Your task to perform on an android device: toggle javascript in the chrome app Image 0: 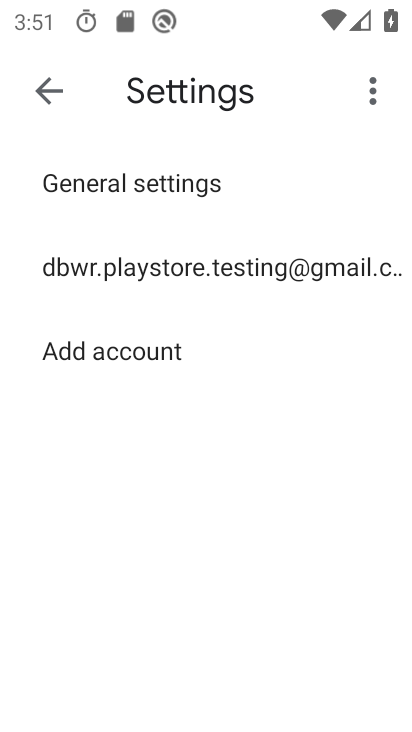
Step 0: press back button
Your task to perform on an android device: toggle javascript in the chrome app Image 1: 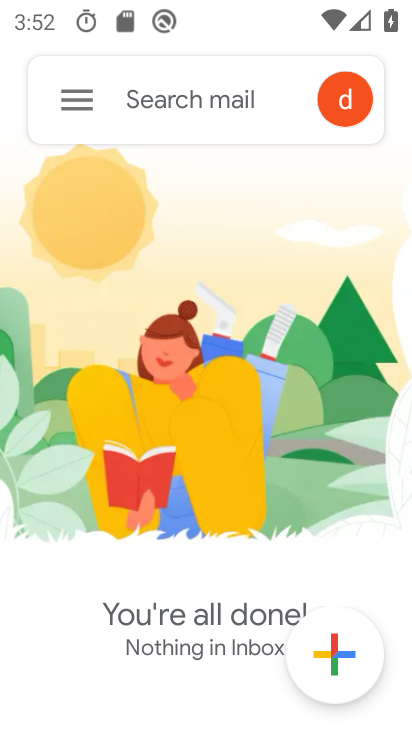
Step 1: click (78, 87)
Your task to perform on an android device: toggle javascript in the chrome app Image 2: 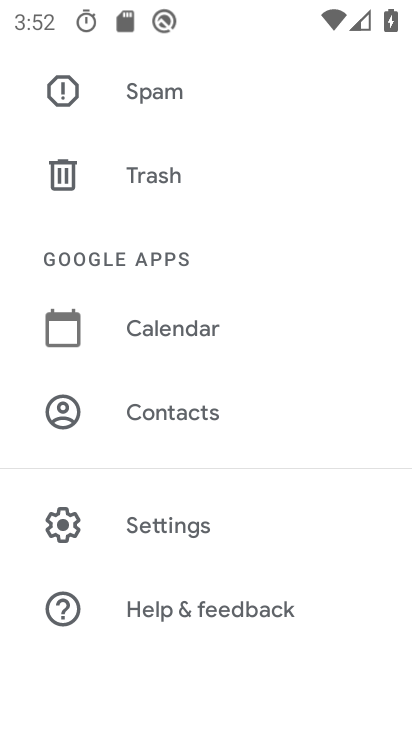
Step 2: press back button
Your task to perform on an android device: toggle javascript in the chrome app Image 3: 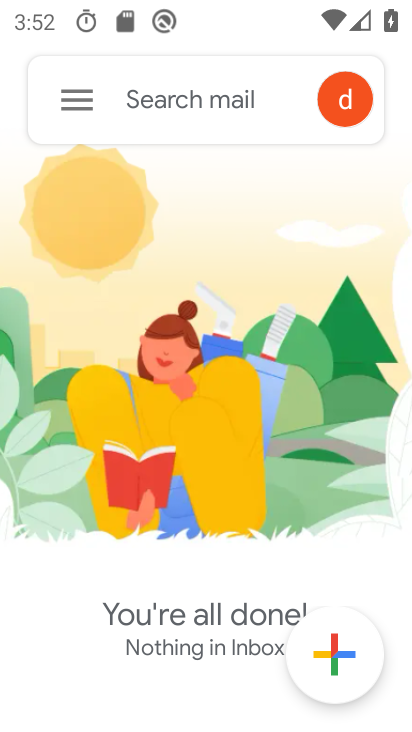
Step 3: press back button
Your task to perform on an android device: toggle javascript in the chrome app Image 4: 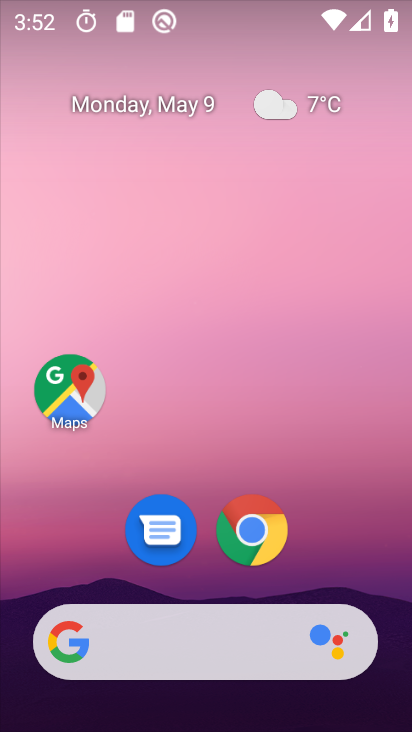
Step 4: click (256, 531)
Your task to perform on an android device: toggle javascript in the chrome app Image 5: 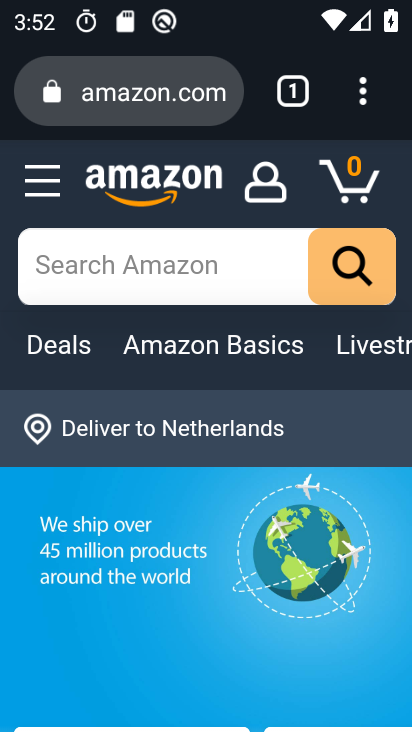
Step 5: click (359, 93)
Your task to perform on an android device: toggle javascript in the chrome app Image 6: 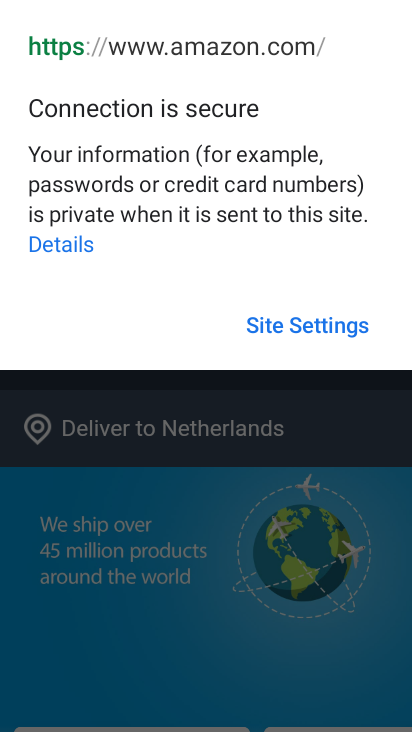
Step 6: click (236, 401)
Your task to perform on an android device: toggle javascript in the chrome app Image 7: 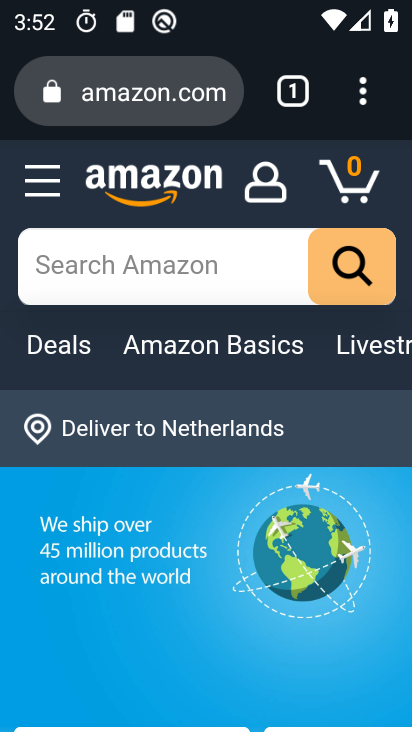
Step 7: drag from (368, 97) to (93, 551)
Your task to perform on an android device: toggle javascript in the chrome app Image 8: 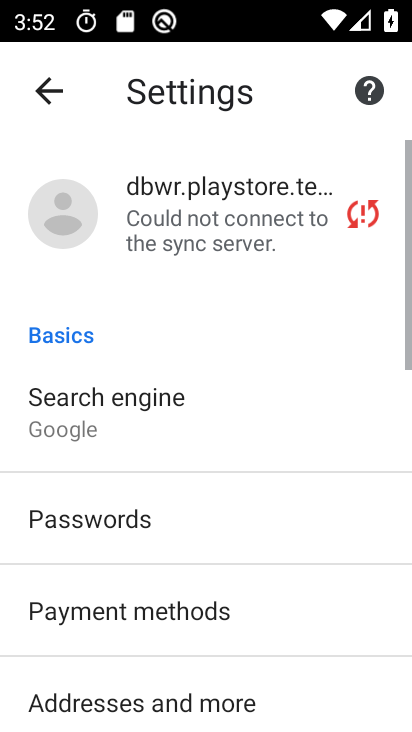
Step 8: drag from (95, 652) to (214, 103)
Your task to perform on an android device: toggle javascript in the chrome app Image 9: 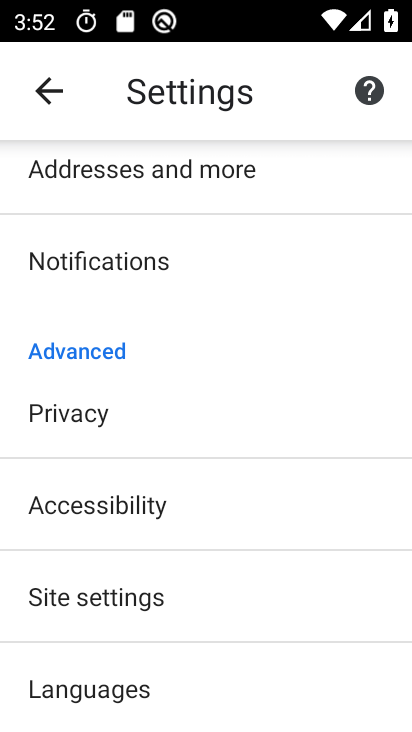
Step 9: click (97, 613)
Your task to perform on an android device: toggle javascript in the chrome app Image 10: 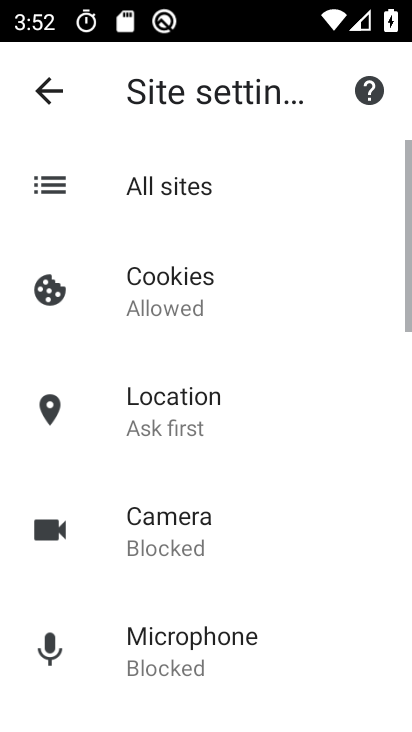
Step 10: drag from (156, 625) to (231, 164)
Your task to perform on an android device: toggle javascript in the chrome app Image 11: 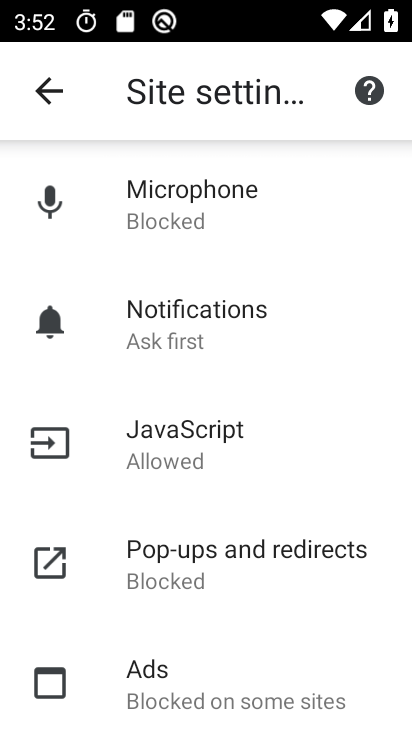
Step 11: click (139, 438)
Your task to perform on an android device: toggle javascript in the chrome app Image 12: 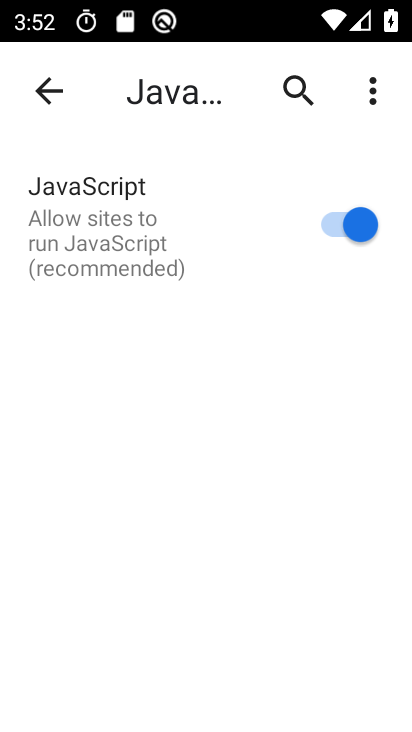
Step 12: click (335, 227)
Your task to perform on an android device: toggle javascript in the chrome app Image 13: 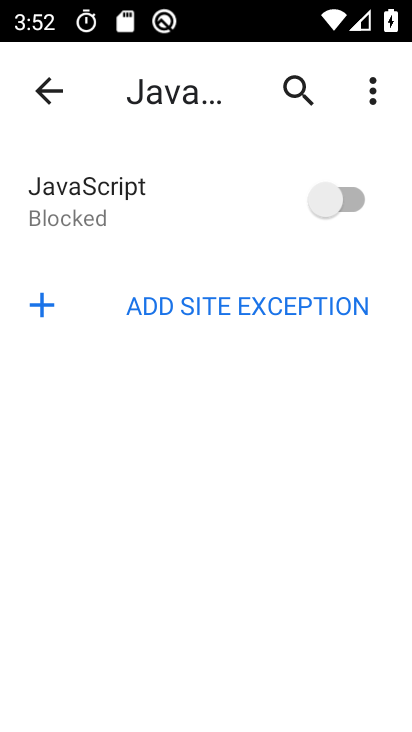
Step 13: task complete